Your task to perform on an android device: snooze an email in the gmail app Image 0: 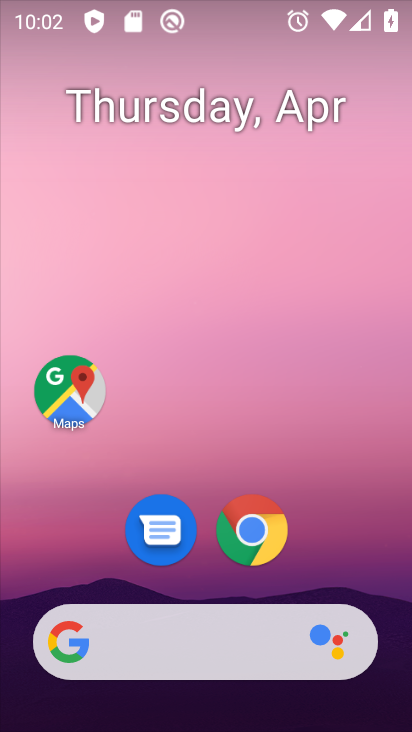
Step 0: drag from (192, 560) to (291, 63)
Your task to perform on an android device: snooze an email in the gmail app Image 1: 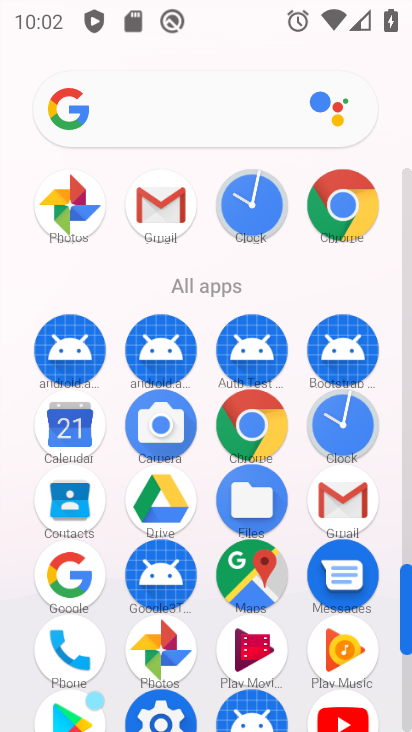
Step 1: click (342, 503)
Your task to perform on an android device: snooze an email in the gmail app Image 2: 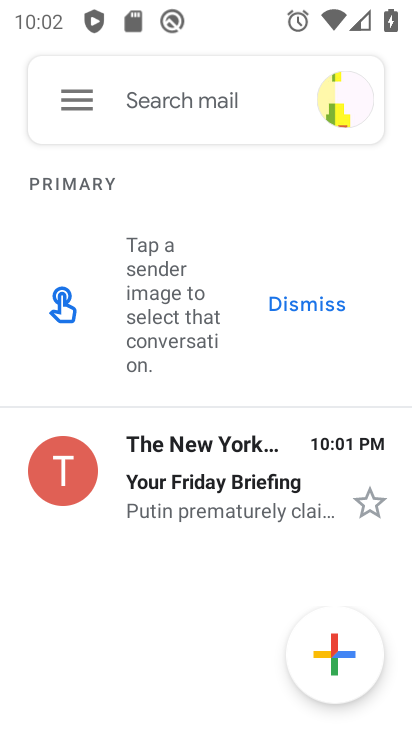
Step 2: click (71, 109)
Your task to perform on an android device: snooze an email in the gmail app Image 3: 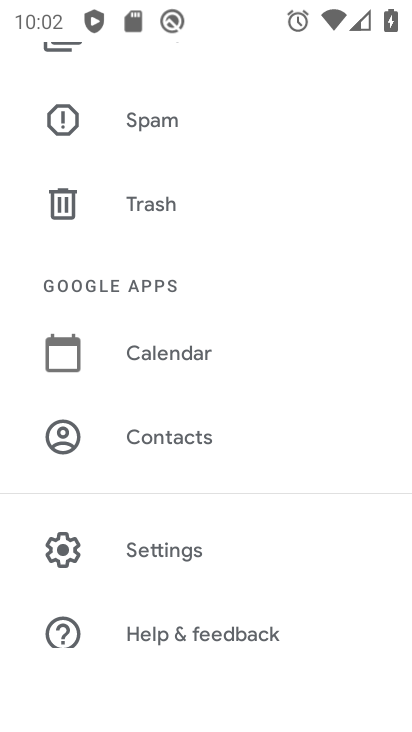
Step 3: drag from (240, 196) to (187, 612)
Your task to perform on an android device: snooze an email in the gmail app Image 4: 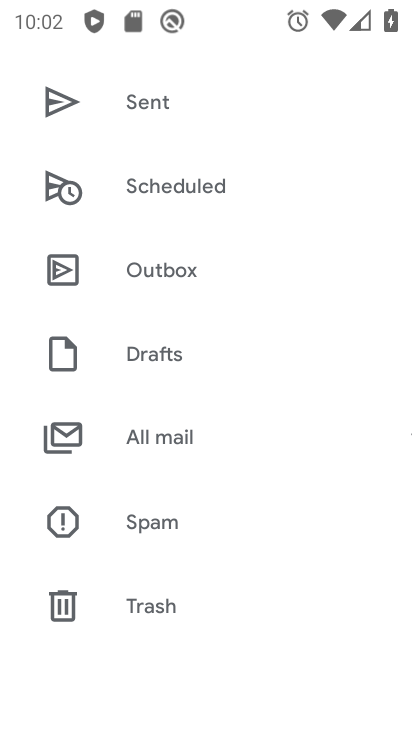
Step 4: drag from (224, 173) to (213, 465)
Your task to perform on an android device: snooze an email in the gmail app Image 5: 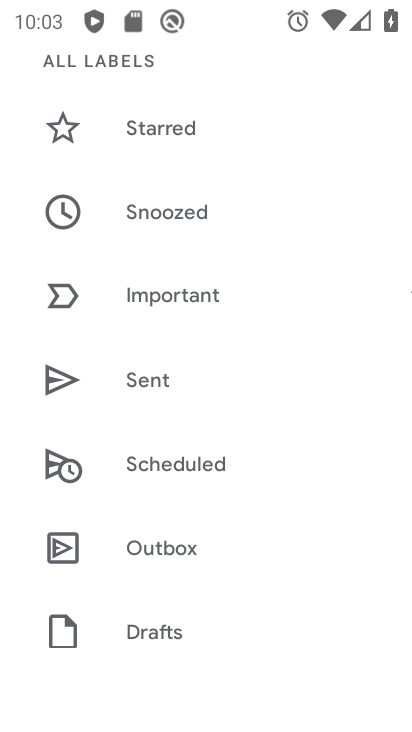
Step 5: drag from (201, 597) to (268, 325)
Your task to perform on an android device: snooze an email in the gmail app Image 6: 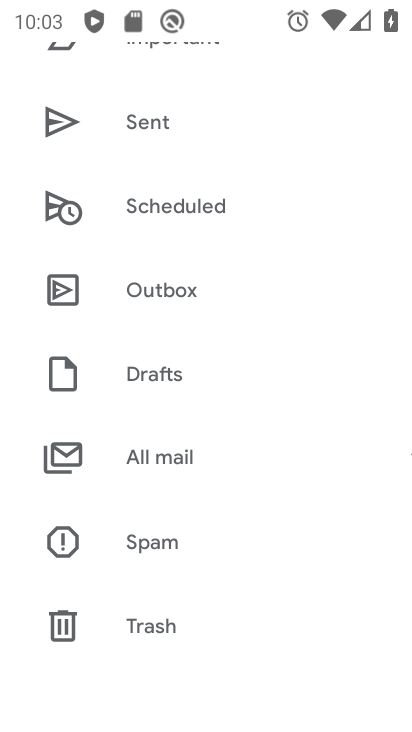
Step 6: click (220, 485)
Your task to perform on an android device: snooze an email in the gmail app Image 7: 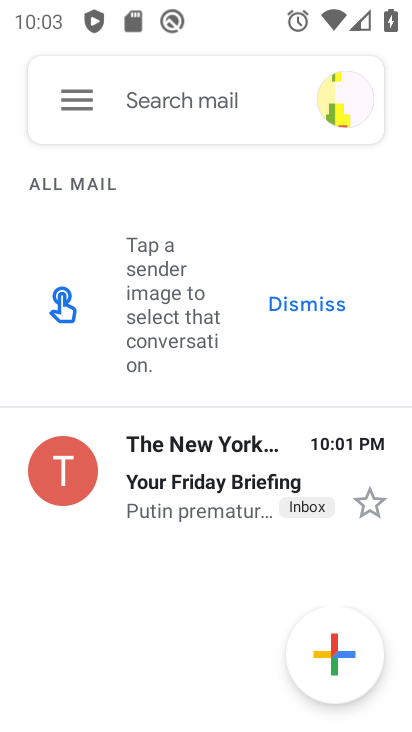
Step 7: click (296, 464)
Your task to perform on an android device: snooze an email in the gmail app Image 8: 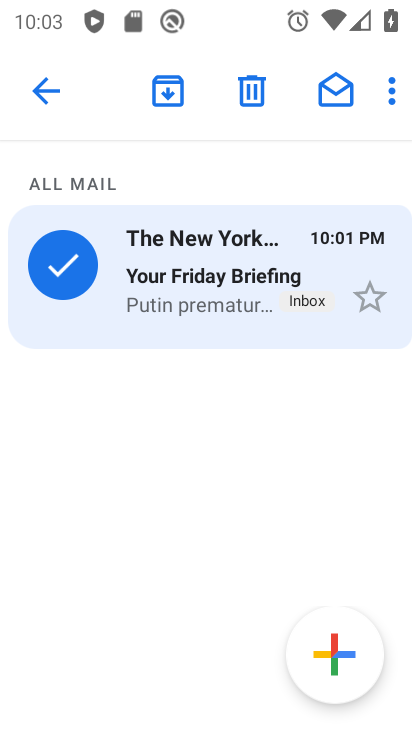
Step 8: click (395, 93)
Your task to perform on an android device: snooze an email in the gmail app Image 9: 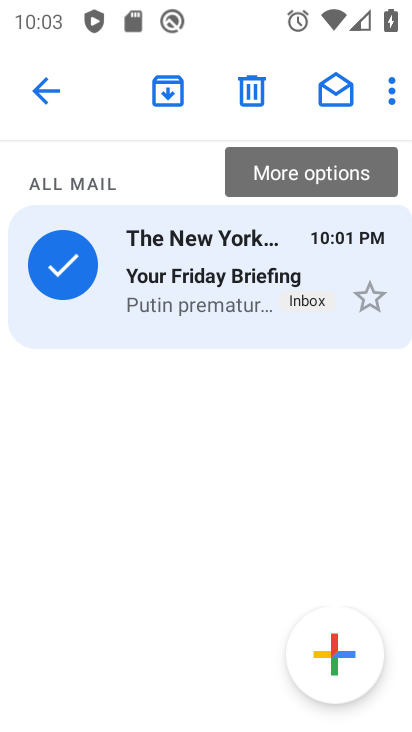
Step 9: click (356, 171)
Your task to perform on an android device: snooze an email in the gmail app Image 10: 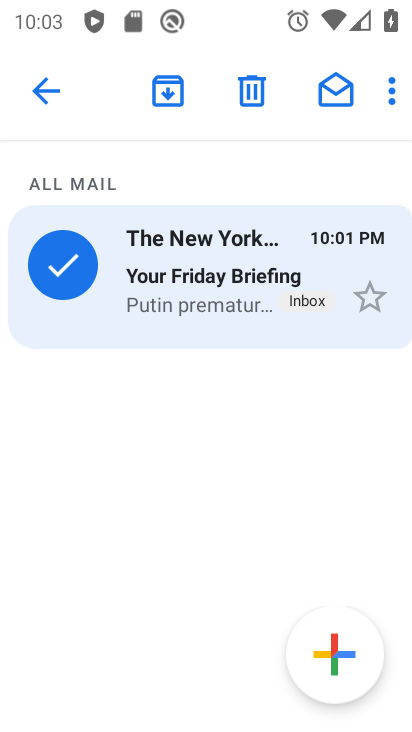
Step 10: click (392, 91)
Your task to perform on an android device: snooze an email in the gmail app Image 11: 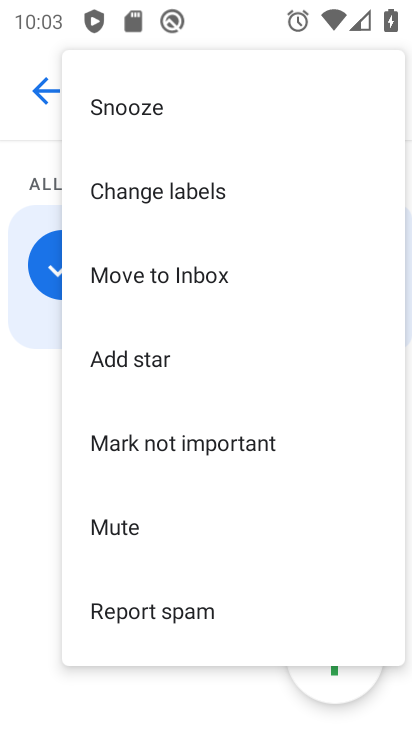
Step 11: drag from (209, 639) to (333, 90)
Your task to perform on an android device: snooze an email in the gmail app Image 12: 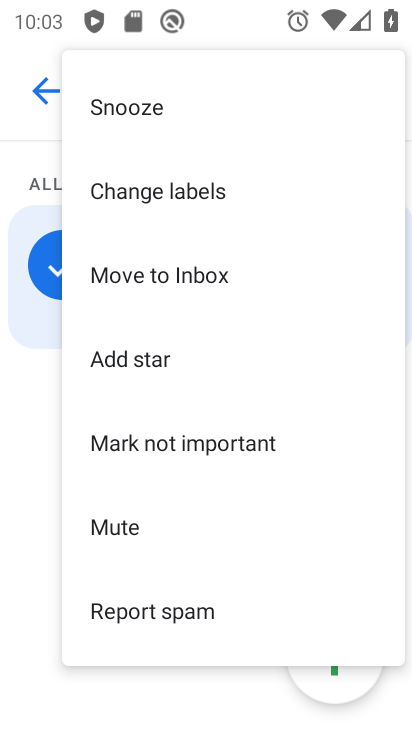
Step 12: click (245, 112)
Your task to perform on an android device: snooze an email in the gmail app Image 13: 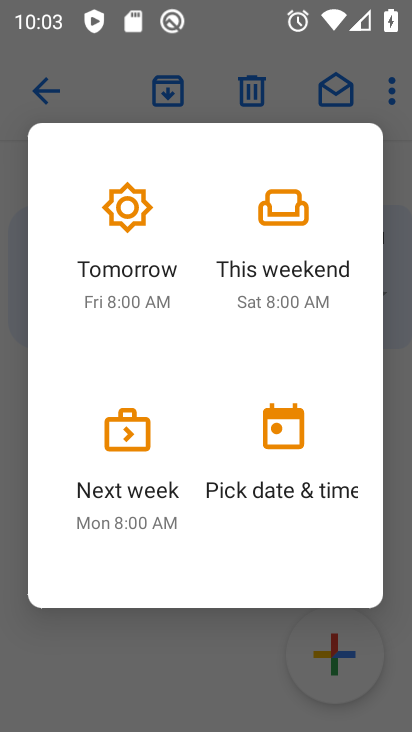
Step 13: click (116, 470)
Your task to perform on an android device: snooze an email in the gmail app Image 14: 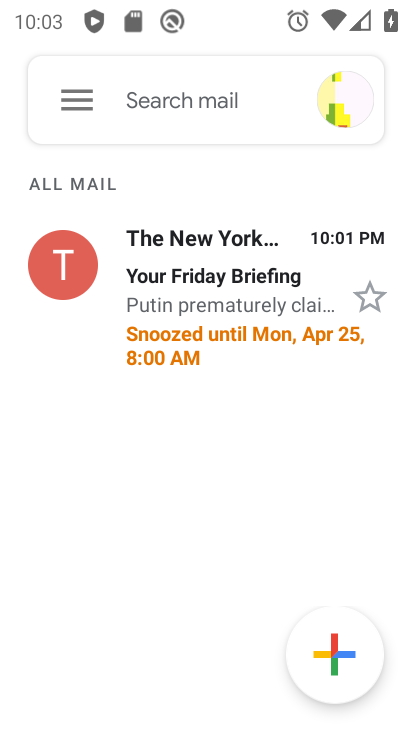
Step 14: task complete